Your task to perform on an android device: Toggle the flashlight Image 0: 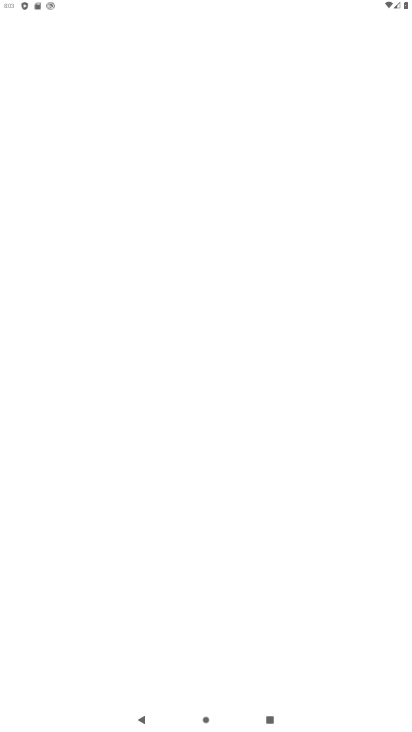
Step 0: drag from (180, 670) to (213, 314)
Your task to perform on an android device: Toggle the flashlight Image 1: 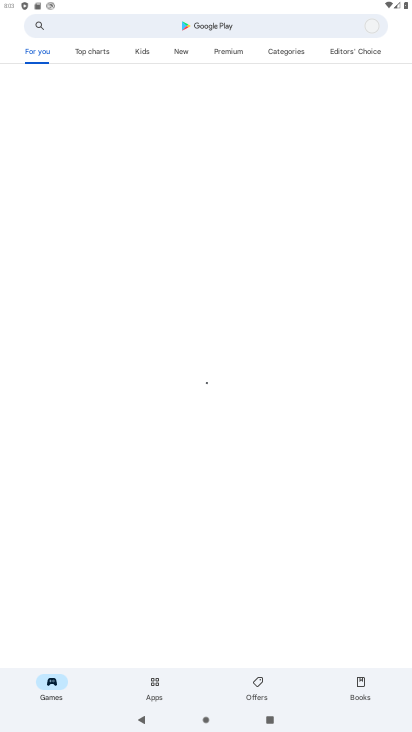
Step 1: drag from (250, 12) to (250, 431)
Your task to perform on an android device: Toggle the flashlight Image 2: 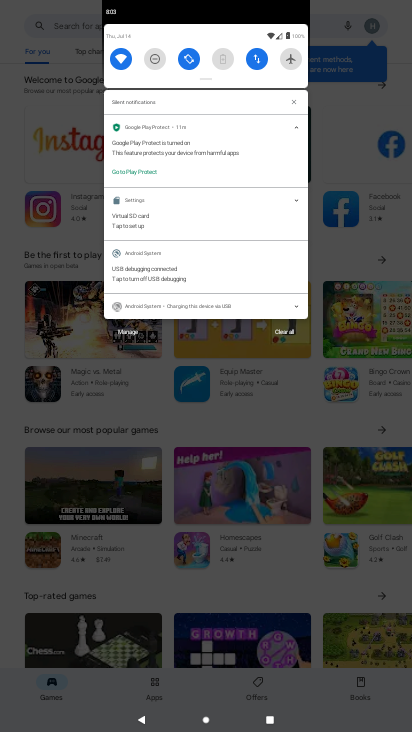
Step 2: drag from (245, 90) to (274, 349)
Your task to perform on an android device: Toggle the flashlight Image 3: 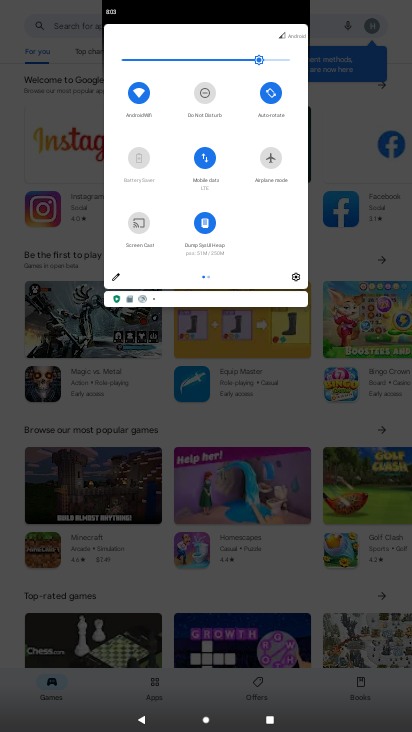
Step 3: drag from (219, 235) to (38, 268)
Your task to perform on an android device: Toggle the flashlight Image 4: 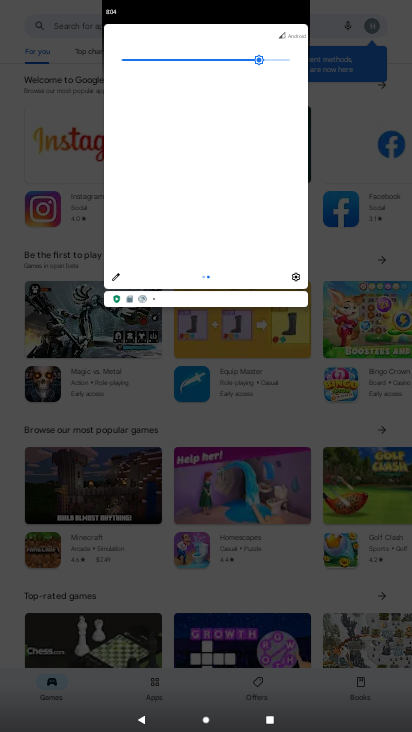
Step 4: click (121, 283)
Your task to perform on an android device: Toggle the flashlight Image 5: 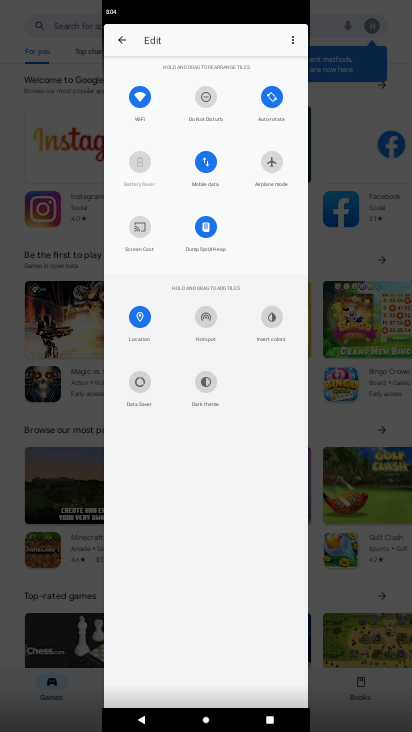
Step 5: task complete